Your task to perform on an android device: change the clock display to show seconds Image 0: 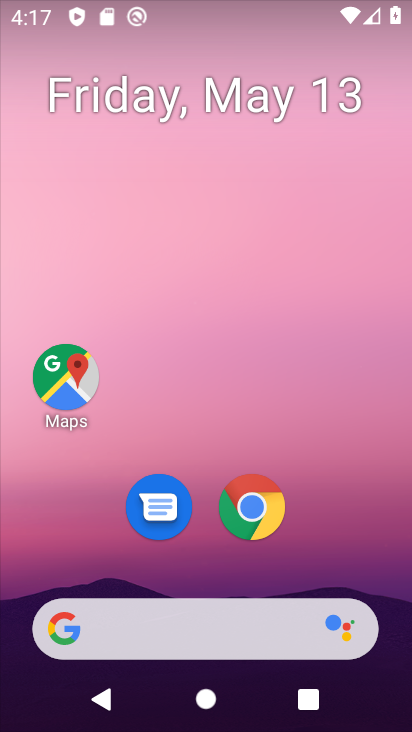
Step 0: drag from (350, 546) to (243, 33)
Your task to perform on an android device: change the clock display to show seconds Image 1: 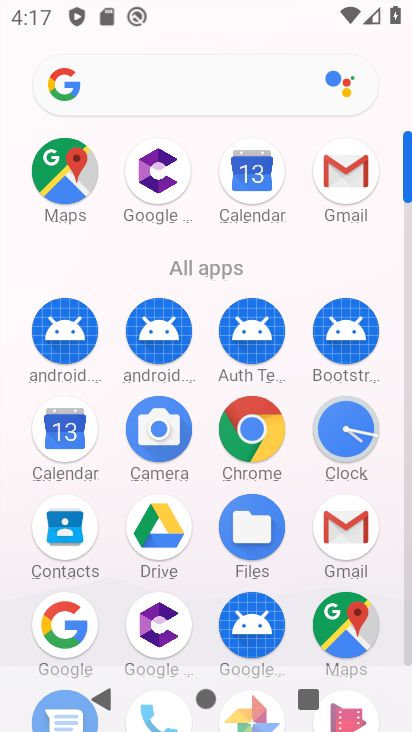
Step 1: click (348, 425)
Your task to perform on an android device: change the clock display to show seconds Image 2: 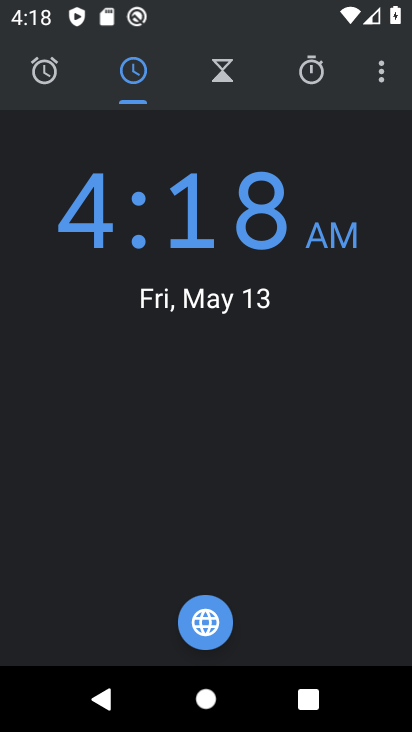
Step 2: click (376, 75)
Your task to perform on an android device: change the clock display to show seconds Image 3: 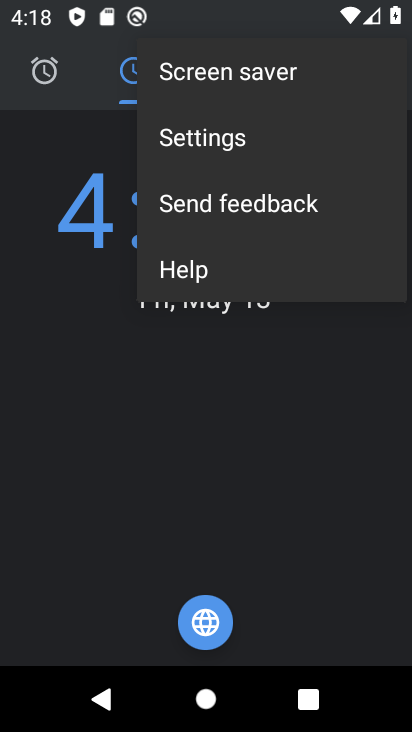
Step 3: click (245, 136)
Your task to perform on an android device: change the clock display to show seconds Image 4: 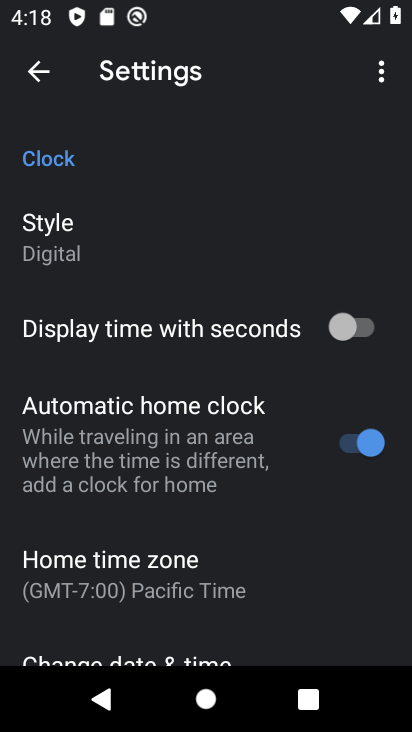
Step 4: click (349, 318)
Your task to perform on an android device: change the clock display to show seconds Image 5: 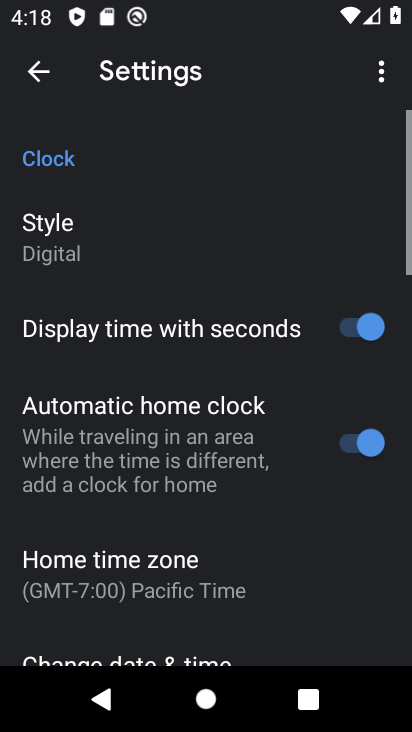
Step 5: task complete